Your task to perform on an android device: Open Reddit.com Image 0: 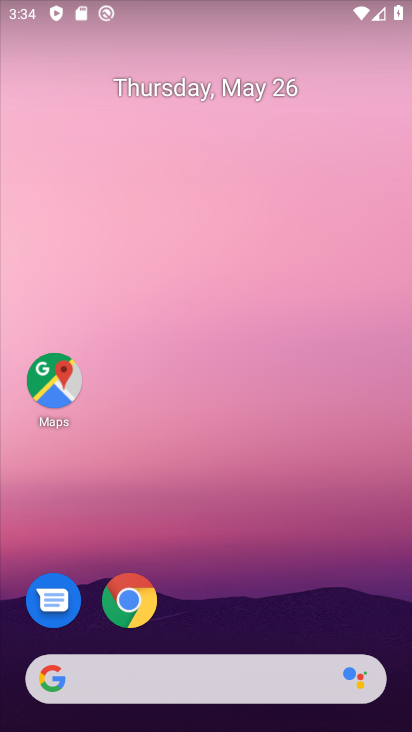
Step 0: click (228, 163)
Your task to perform on an android device: Open Reddit.com Image 1: 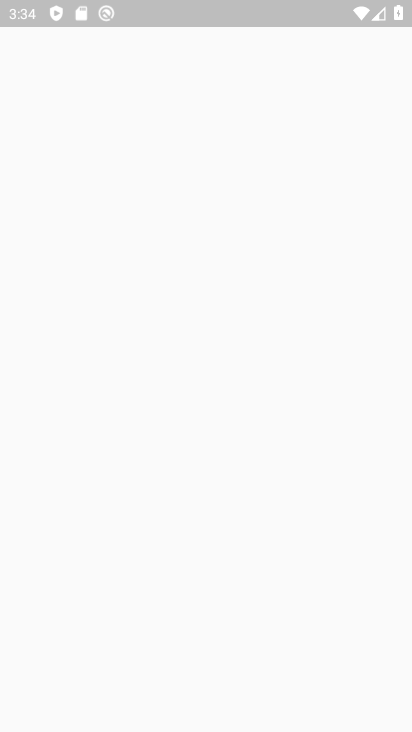
Step 1: press home button
Your task to perform on an android device: Open Reddit.com Image 2: 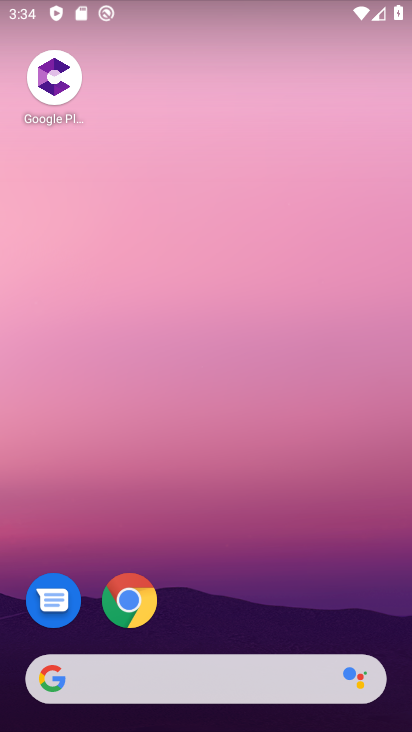
Step 2: click (132, 609)
Your task to perform on an android device: Open Reddit.com Image 3: 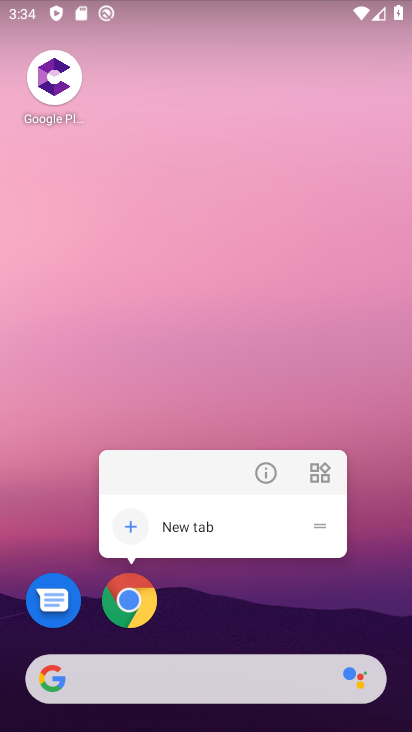
Step 3: click (138, 604)
Your task to perform on an android device: Open Reddit.com Image 4: 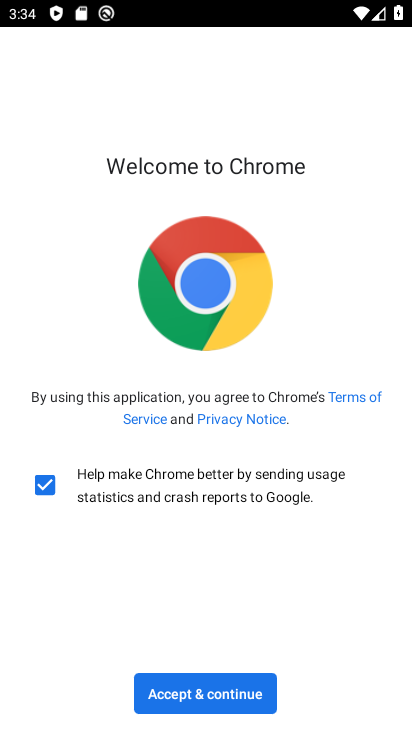
Step 4: click (193, 697)
Your task to perform on an android device: Open Reddit.com Image 5: 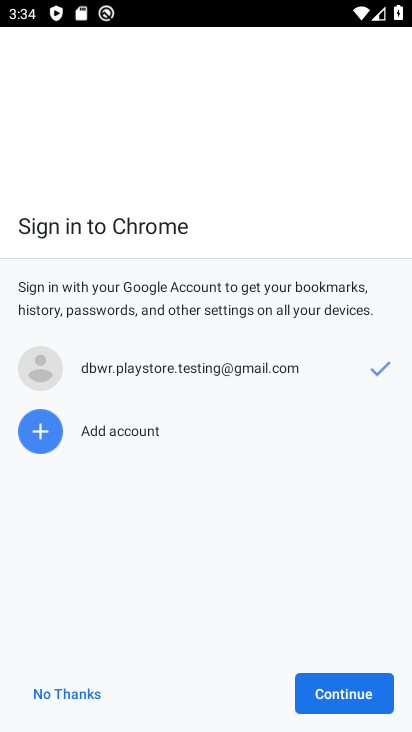
Step 5: click (399, 679)
Your task to perform on an android device: Open Reddit.com Image 6: 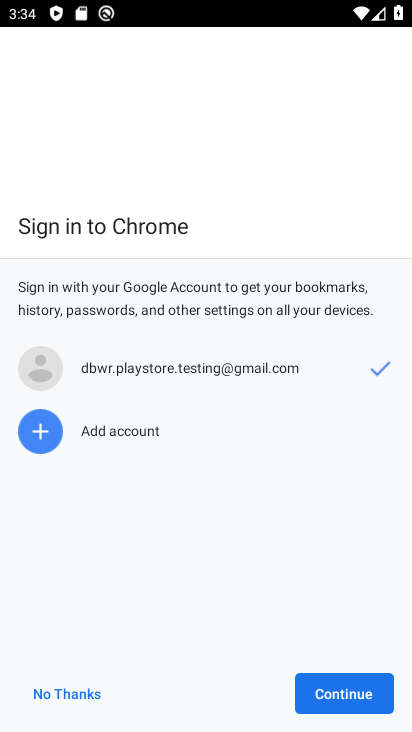
Step 6: click (353, 690)
Your task to perform on an android device: Open Reddit.com Image 7: 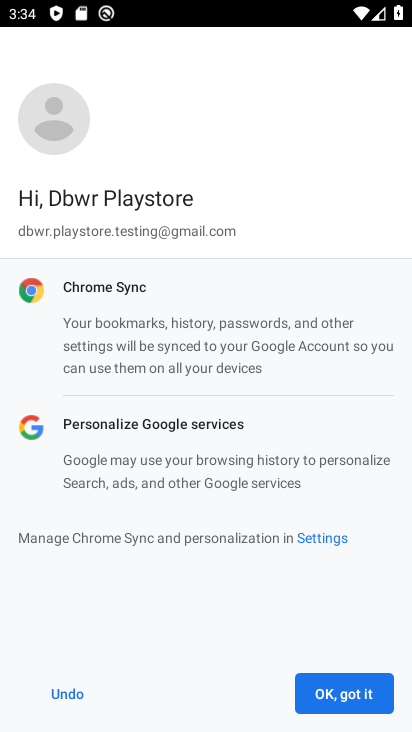
Step 7: click (351, 689)
Your task to perform on an android device: Open Reddit.com Image 8: 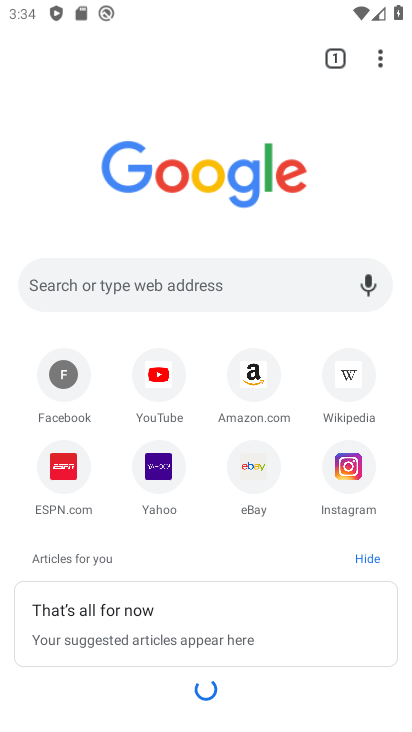
Step 8: click (106, 281)
Your task to perform on an android device: Open Reddit.com Image 9: 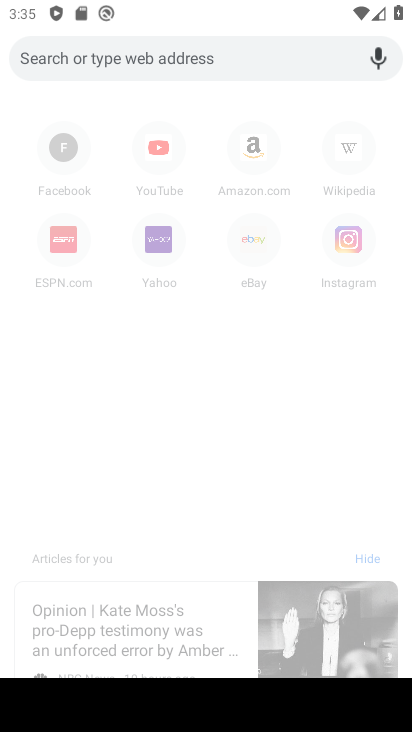
Step 9: type "Reddit.com"
Your task to perform on an android device: Open Reddit.com Image 10: 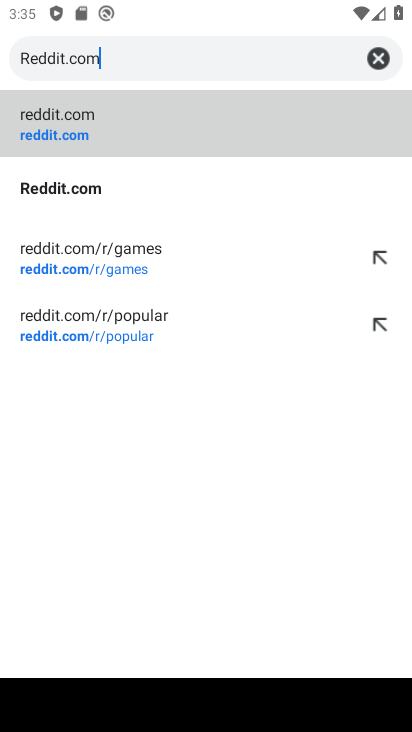
Step 10: click (93, 110)
Your task to perform on an android device: Open Reddit.com Image 11: 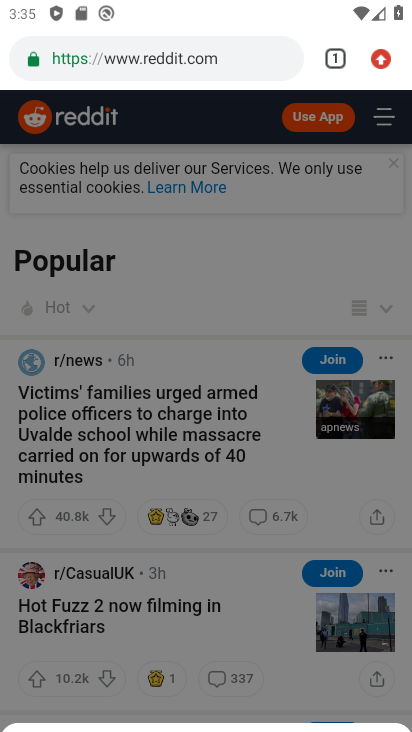
Step 11: task complete